Your task to perform on an android device: When is my next meeting? Image 0: 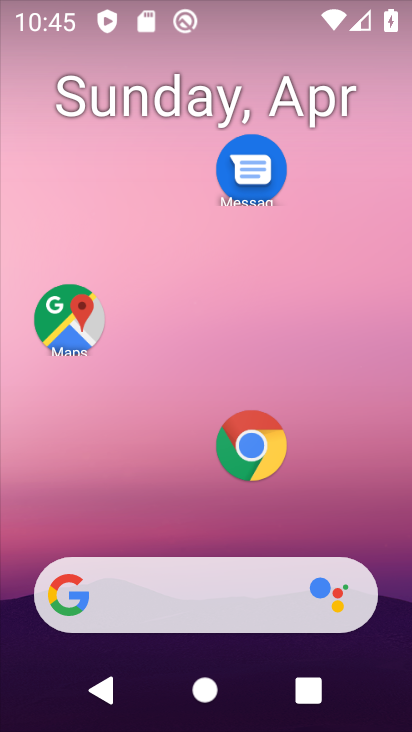
Step 0: drag from (178, 586) to (306, 107)
Your task to perform on an android device: When is my next meeting? Image 1: 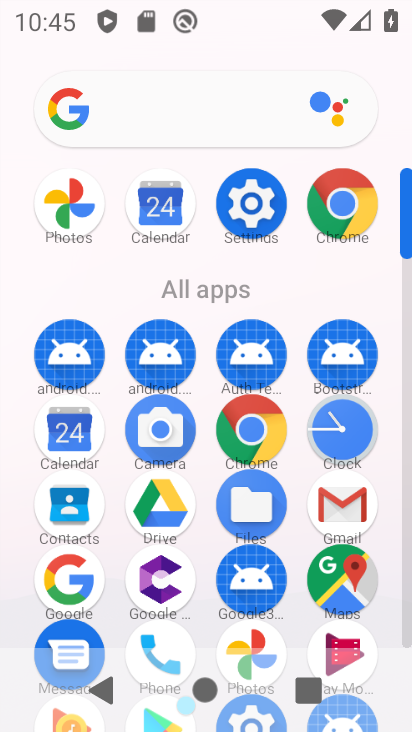
Step 1: click (165, 217)
Your task to perform on an android device: When is my next meeting? Image 2: 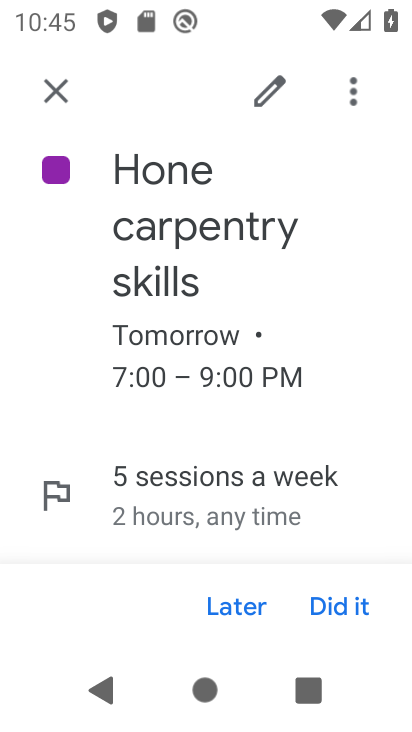
Step 2: task complete